Your task to perform on an android device: Add "macbook pro 13 inch" to the cart on walmart, then select checkout. Image 0: 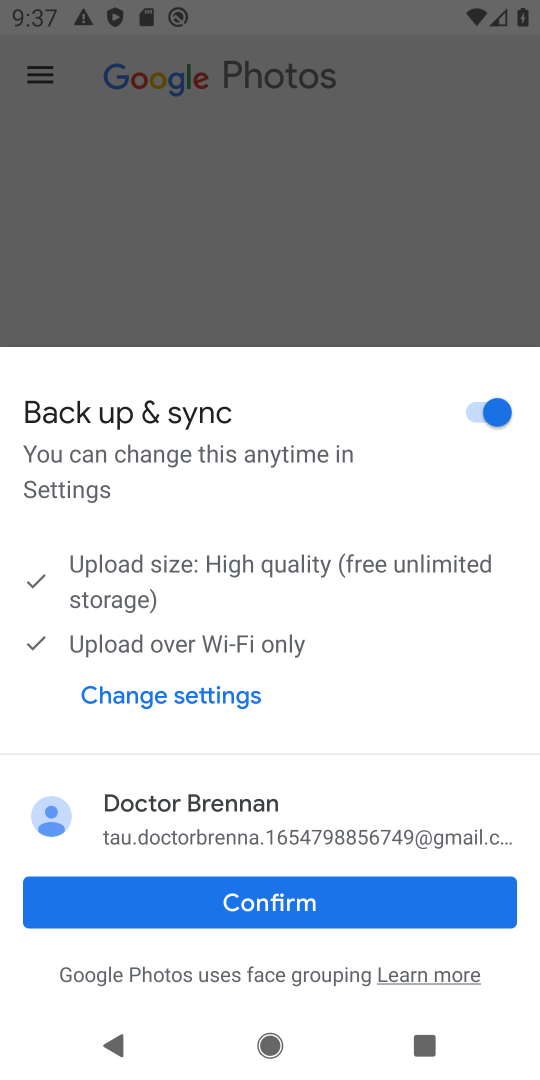
Step 0: press home button
Your task to perform on an android device: Add "macbook pro 13 inch" to the cart on walmart, then select checkout. Image 1: 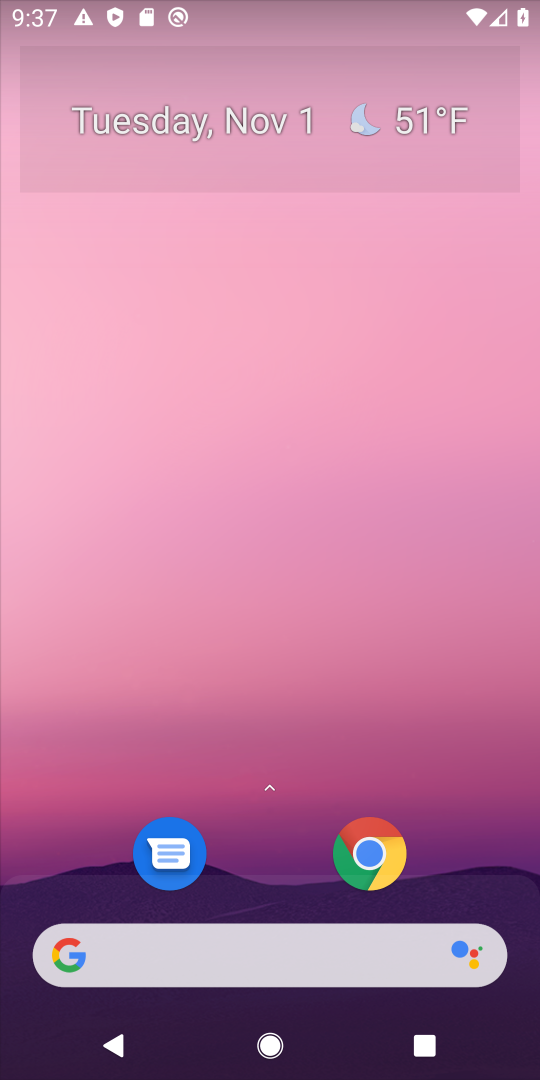
Step 1: click (220, 996)
Your task to perform on an android device: Add "macbook pro 13 inch" to the cart on walmart, then select checkout. Image 2: 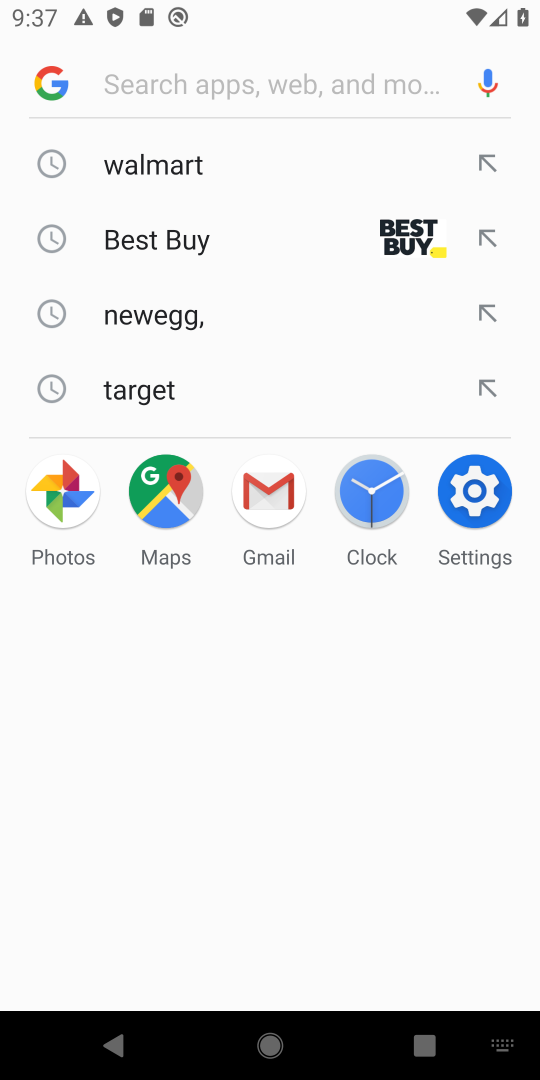
Step 2: click (174, 159)
Your task to perform on an android device: Add "macbook pro 13 inch" to the cart on walmart, then select checkout. Image 3: 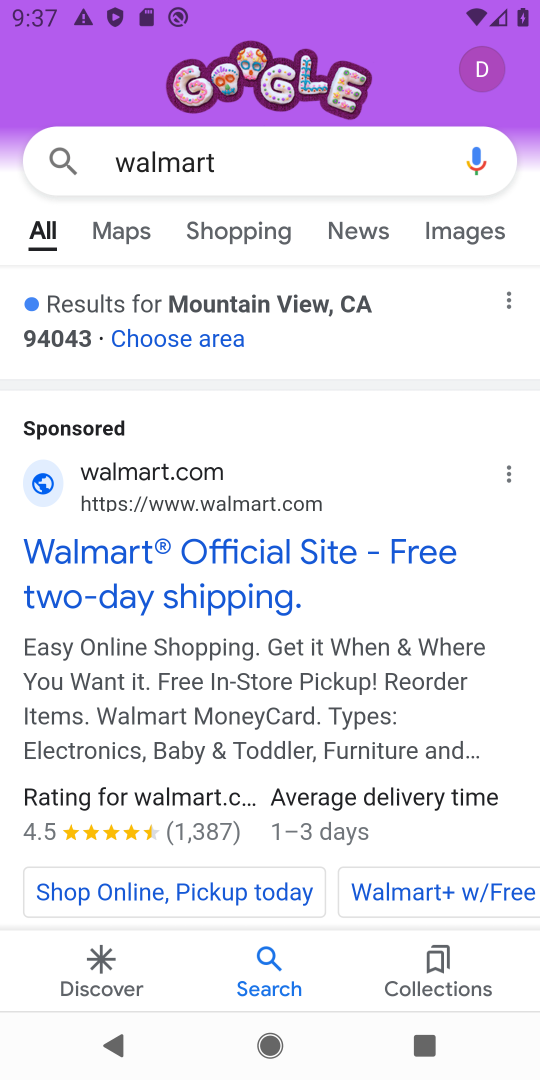
Step 3: click (99, 563)
Your task to perform on an android device: Add "macbook pro 13 inch" to the cart on walmart, then select checkout. Image 4: 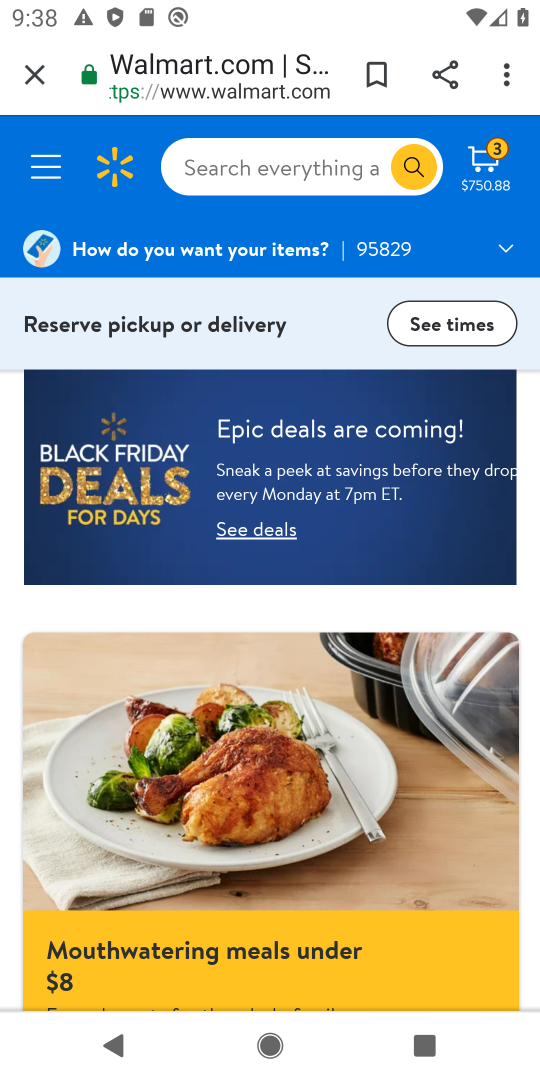
Step 4: click (285, 170)
Your task to perform on an android device: Add "macbook pro 13 inch" to the cart on walmart, then select checkout. Image 5: 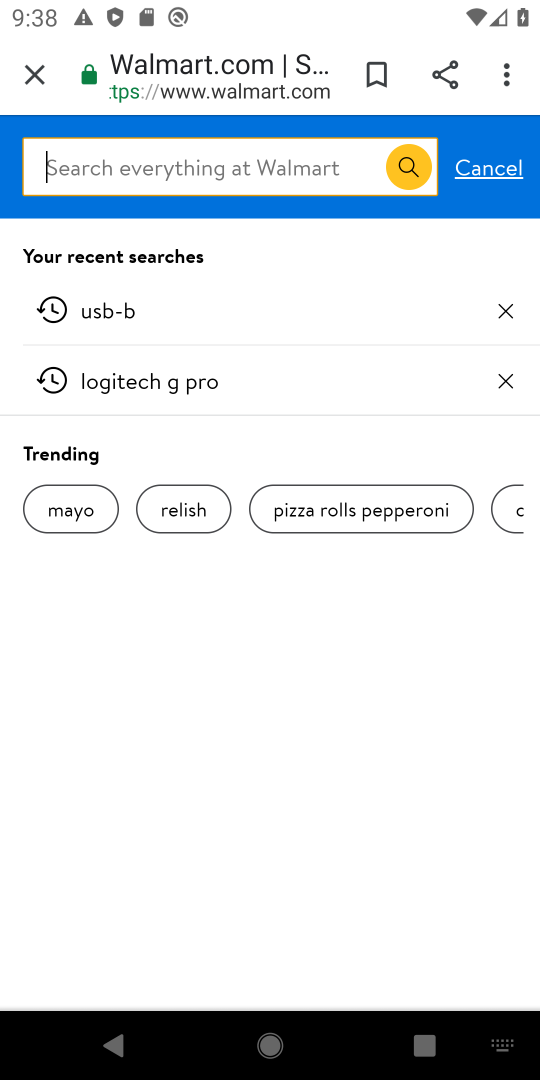
Step 5: type "macbook pro 13"
Your task to perform on an android device: Add "macbook pro 13 inch" to the cart on walmart, then select checkout. Image 6: 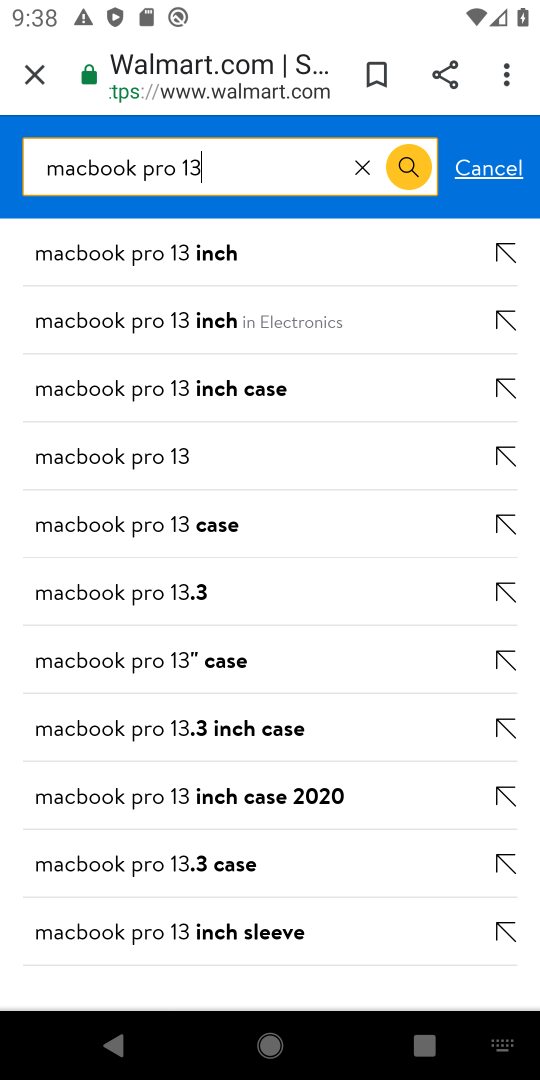
Step 6: click (358, 272)
Your task to perform on an android device: Add "macbook pro 13 inch" to the cart on walmart, then select checkout. Image 7: 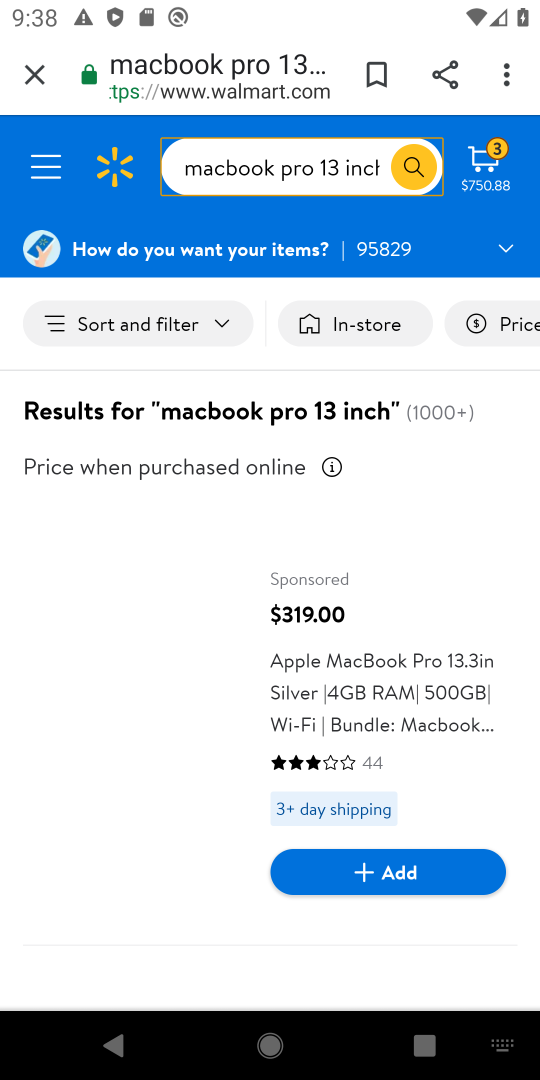
Step 7: click (434, 882)
Your task to perform on an android device: Add "macbook pro 13 inch" to the cart on walmart, then select checkout. Image 8: 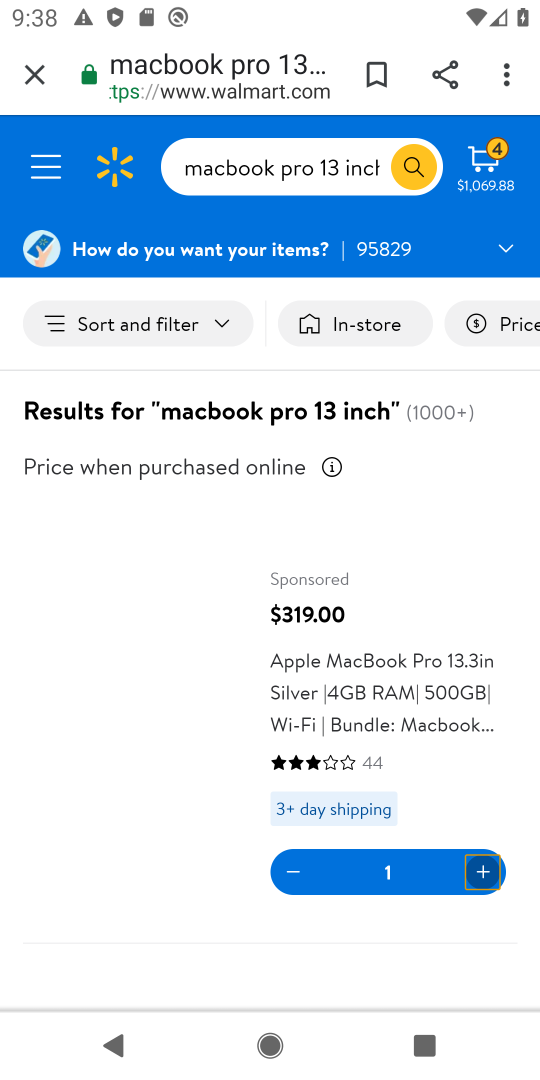
Step 8: task complete